Your task to perform on an android device: check android version Image 0: 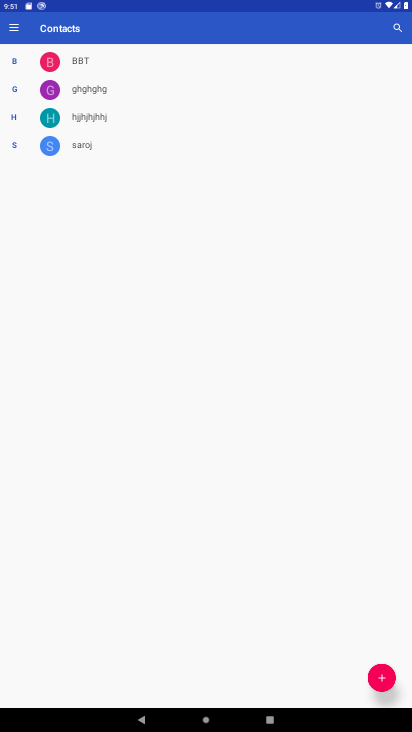
Step 0: press home button
Your task to perform on an android device: check android version Image 1: 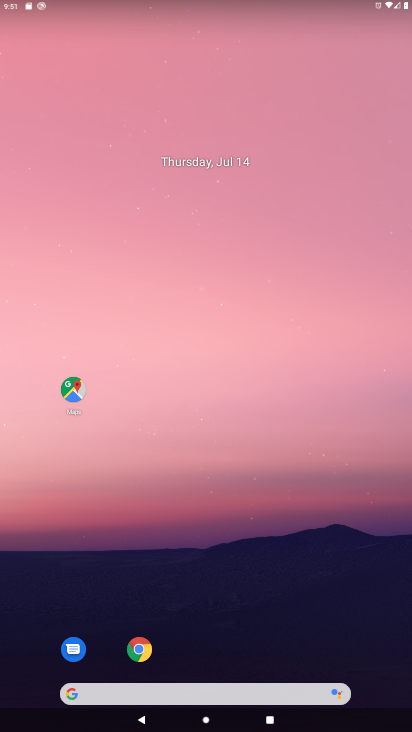
Step 1: drag from (230, 721) to (327, 40)
Your task to perform on an android device: check android version Image 2: 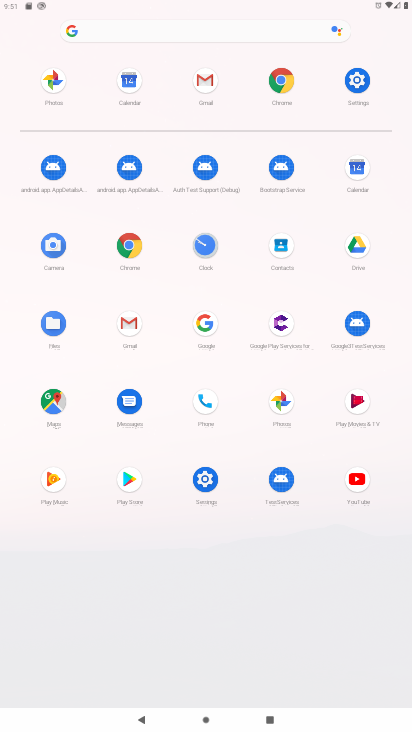
Step 2: click (352, 86)
Your task to perform on an android device: check android version Image 3: 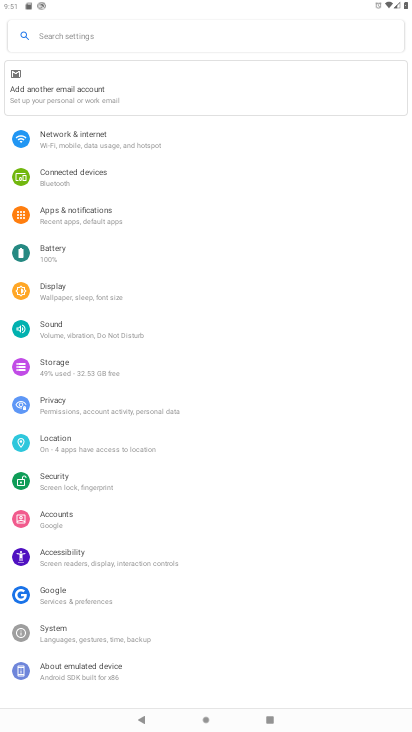
Step 3: click (142, 677)
Your task to perform on an android device: check android version Image 4: 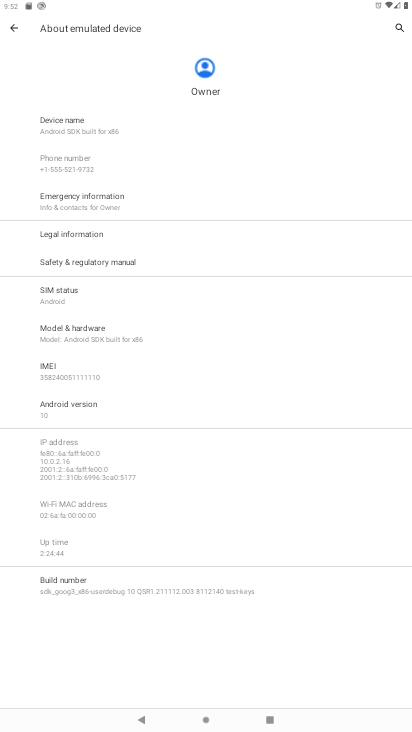
Step 4: task complete